Your task to perform on an android device: turn off translation in the chrome app Image 0: 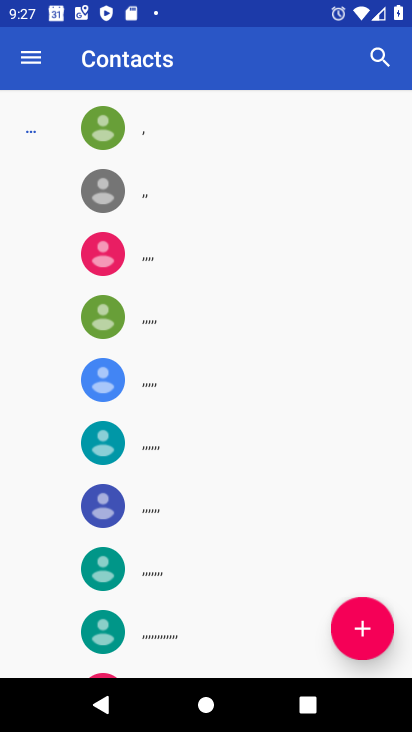
Step 0: press home button
Your task to perform on an android device: turn off translation in the chrome app Image 1: 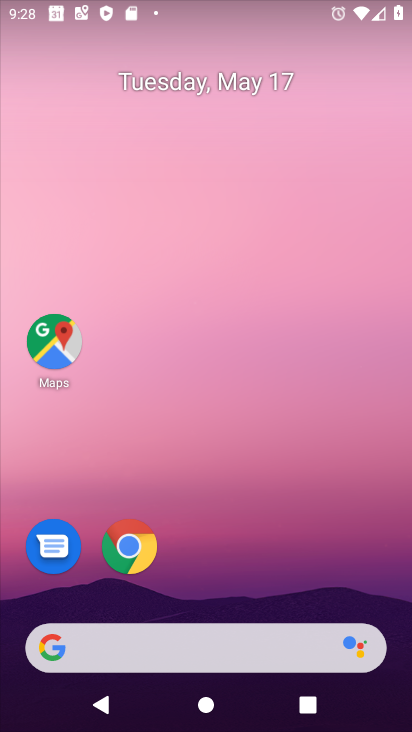
Step 1: click (125, 548)
Your task to perform on an android device: turn off translation in the chrome app Image 2: 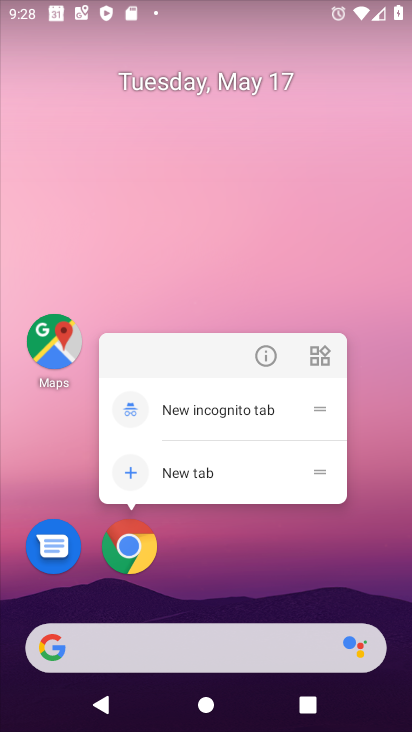
Step 2: click (123, 540)
Your task to perform on an android device: turn off translation in the chrome app Image 3: 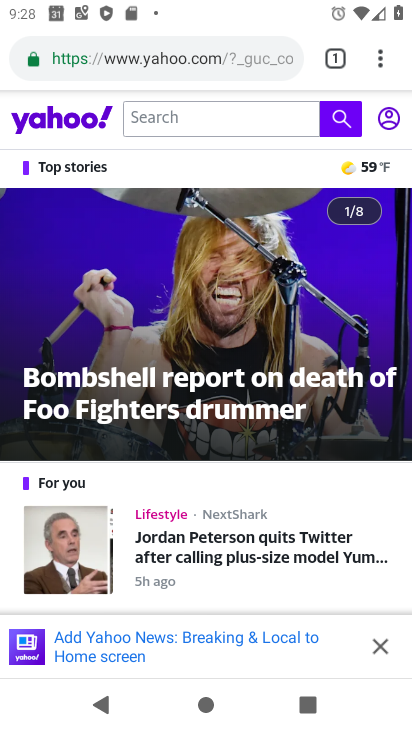
Step 3: click (382, 50)
Your task to perform on an android device: turn off translation in the chrome app Image 4: 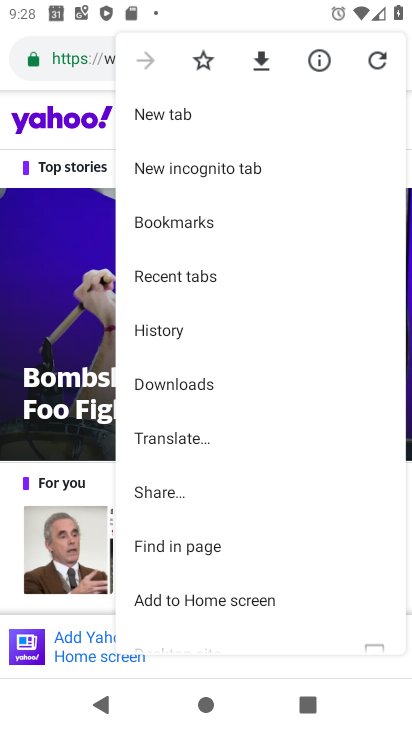
Step 4: drag from (249, 553) to (281, 387)
Your task to perform on an android device: turn off translation in the chrome app Image 5: 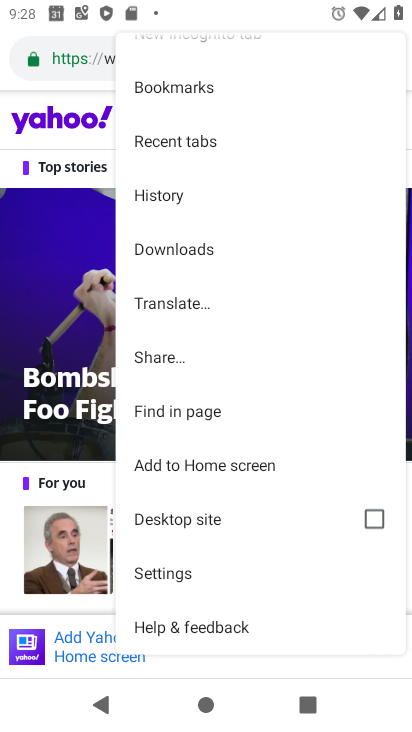
Step 5: click (198, 570)
Your task to perform on an android device: turn off translation in the chrome app Image 6: 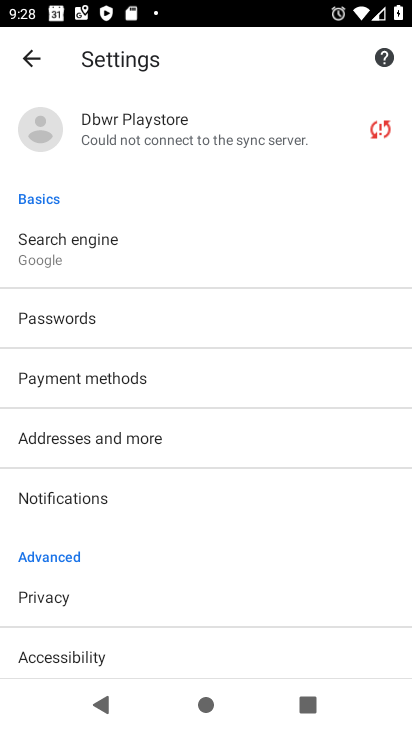
Step 6: drag from (231, 586) to (257, 392)
Your task to perform on an android device: turn off translation in the chrome app Image 7: 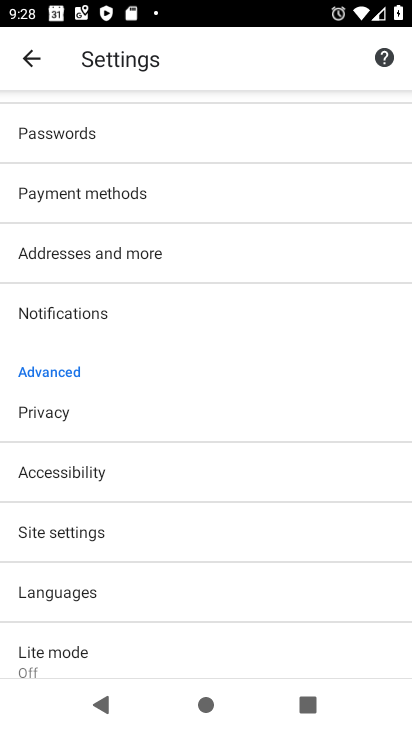
Step 7: click (153, 584)
Your task to perform on an android device: turn off translation in the chrome app Image 8: 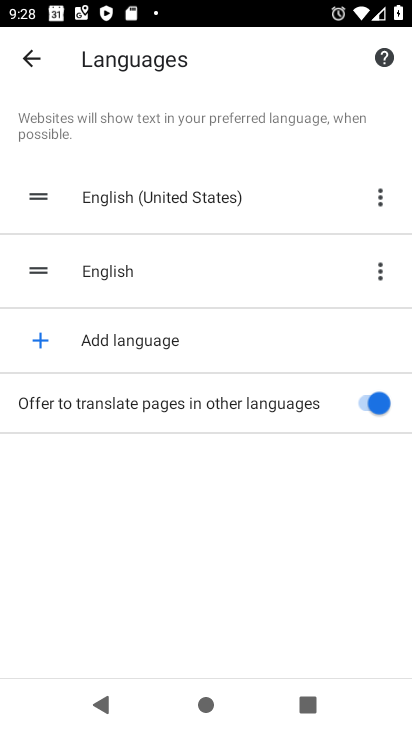
Step 8: click (359, 397)
Your task to perform on an android device: turn off translation in the chrome app Image 9: 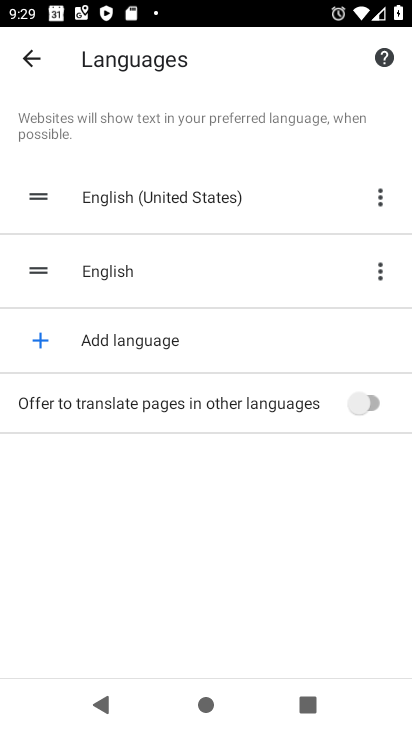
Step 9: task complete